Your task to perform on an android device: What's the top post on reddit right now? Image 0: 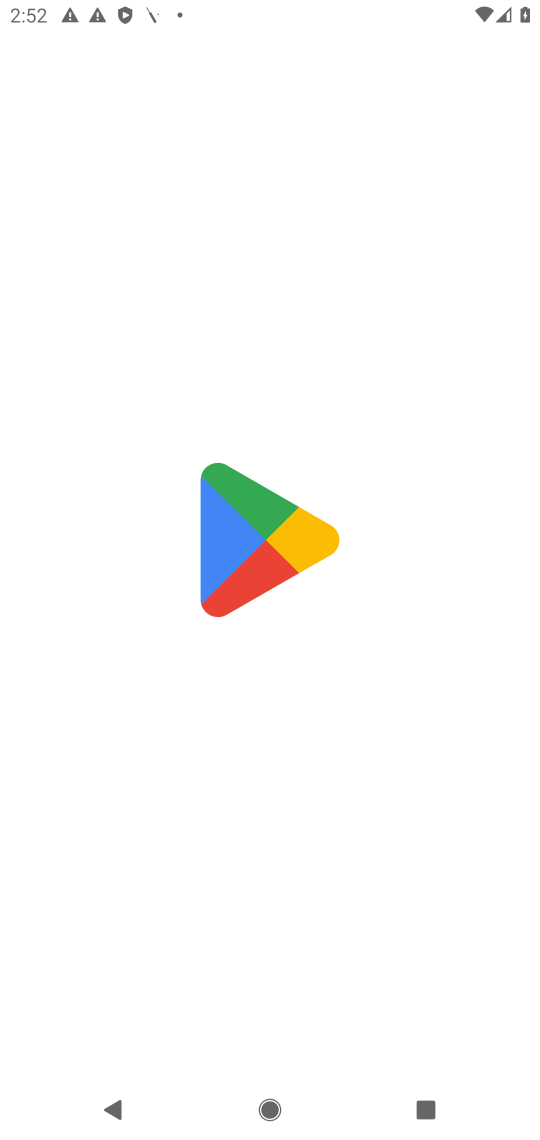
Step 0: press home button
Your task to perform on an android device: What's the top post on reddit right now? Image 1: 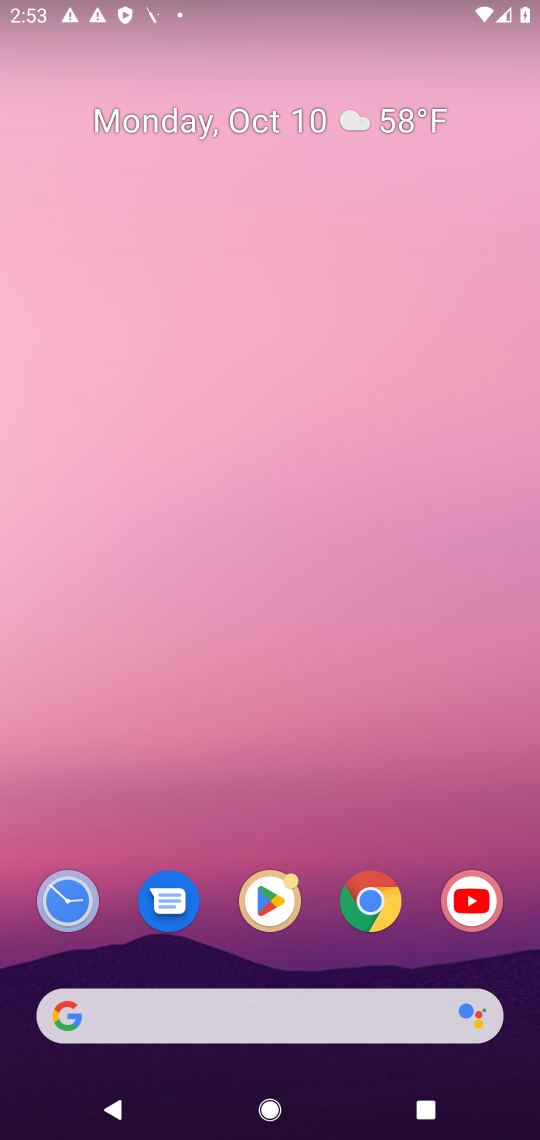
Step 1: drag from (315, 783) to (333, 596)
Your task to perform on an android device: What's the top post on reddit right now? Image 2: 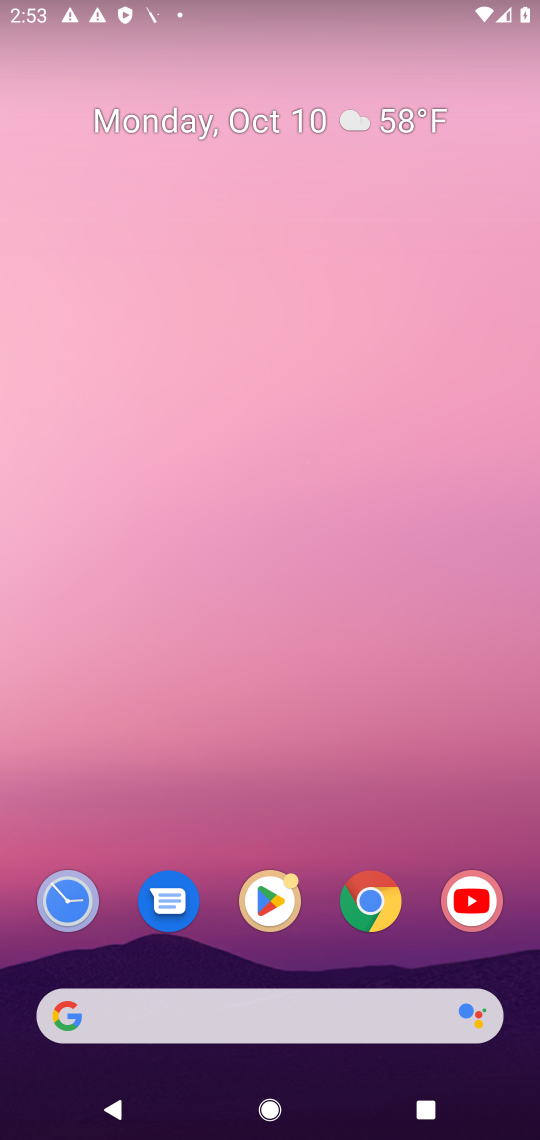
Step 2: drag from (365, 887) to (341, 441)
Your task to perform on an android device: What's the top post on reddit right now? Image 3: 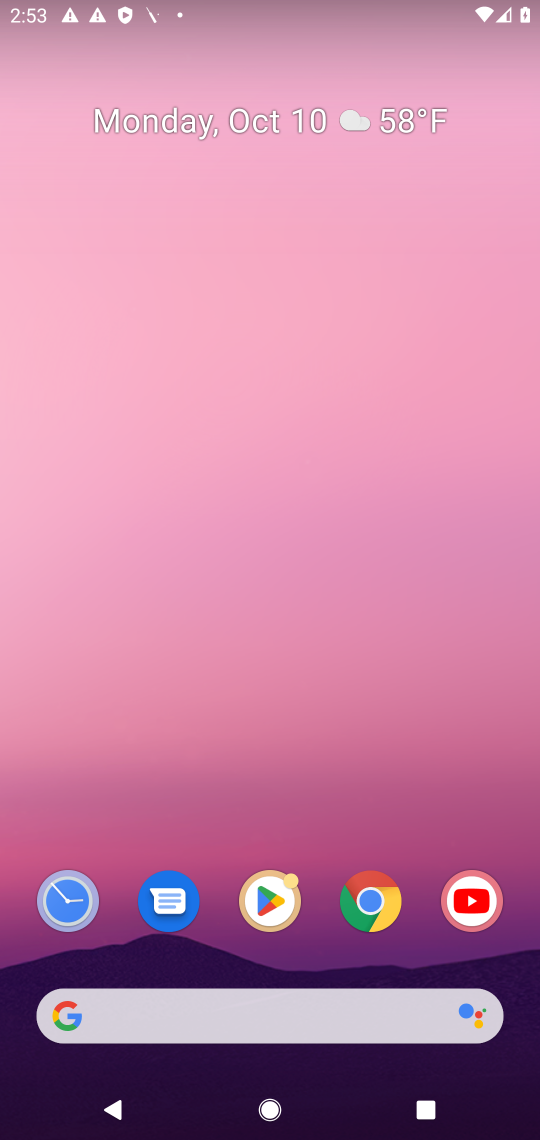
Step 3: drag from (226, 930) to (285, 418)
Your task to perform on an android device: What's the top post on reddit right now? Image 4: 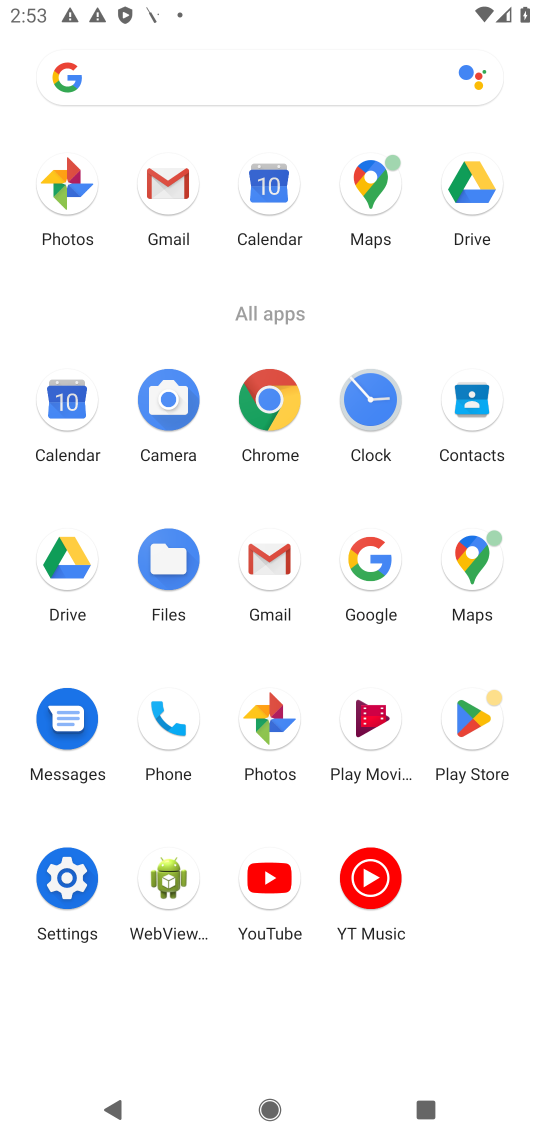
Step 4: click (371, 587)
Your task to perform on an android device: What's the top post on reddit right now? Image 5: 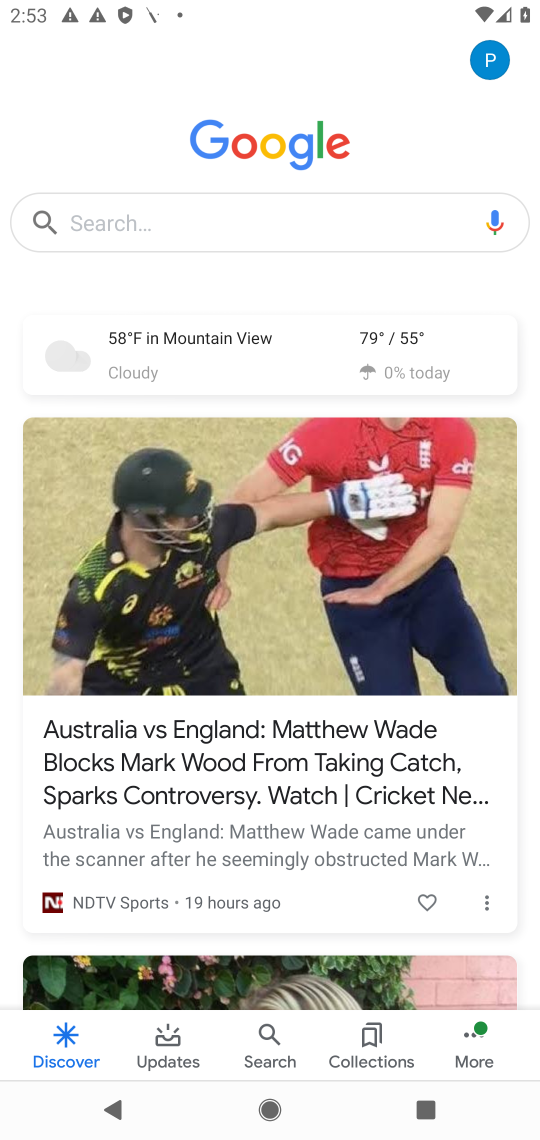
Step 5: click (362, 219)
Your task to perform on an android device: What's the top post on reddit right now? Image 6: 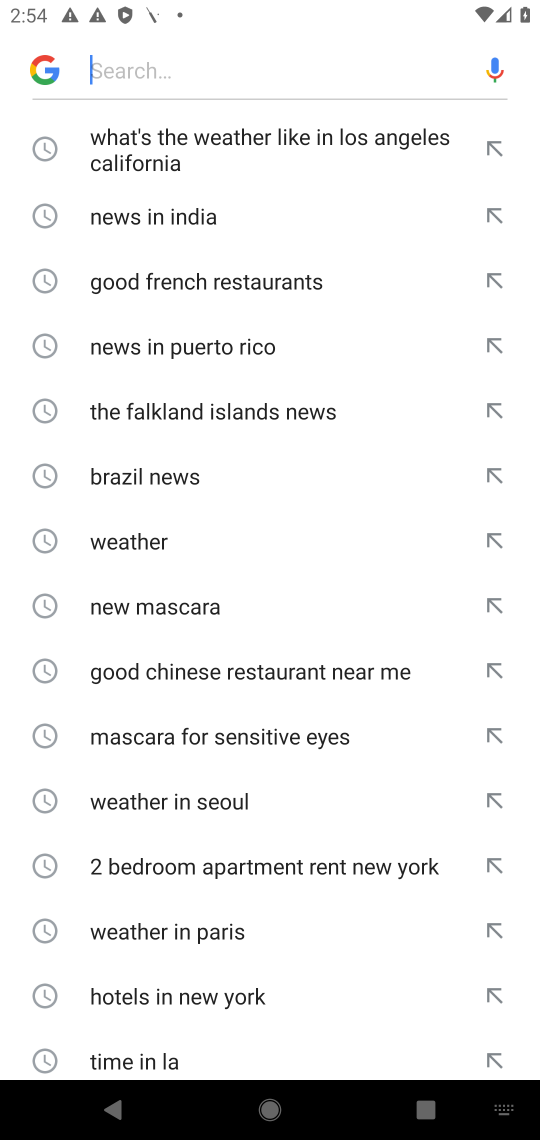
Step 6: type "reddit"
Your task to perform on an android device: What's the top post on reddit right now? Image 7: 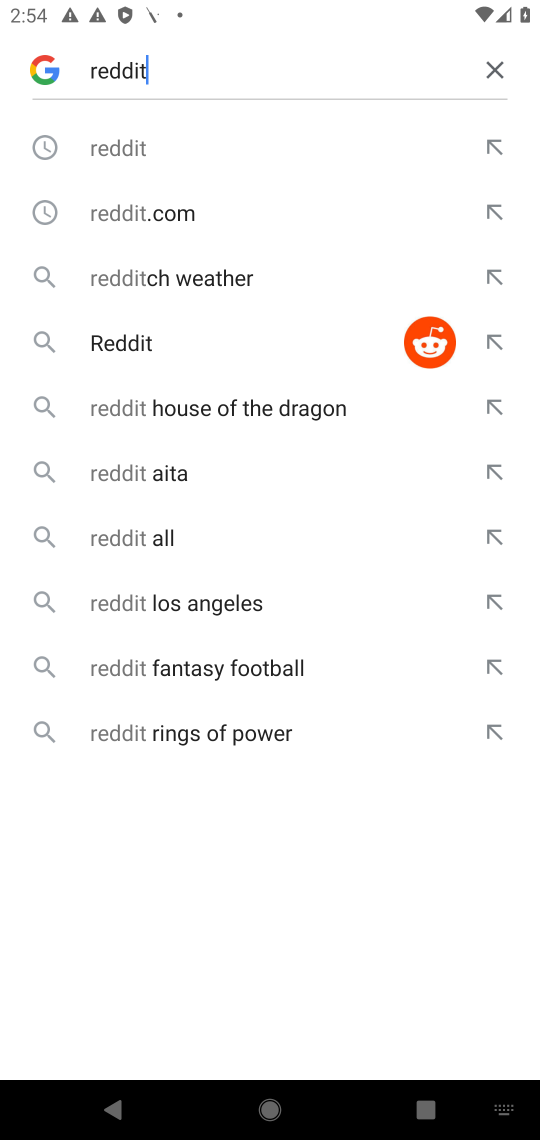
Step 7: click (277, 335)
Your task to perform on an android device: What's the top post on reddit right now? Image 8: 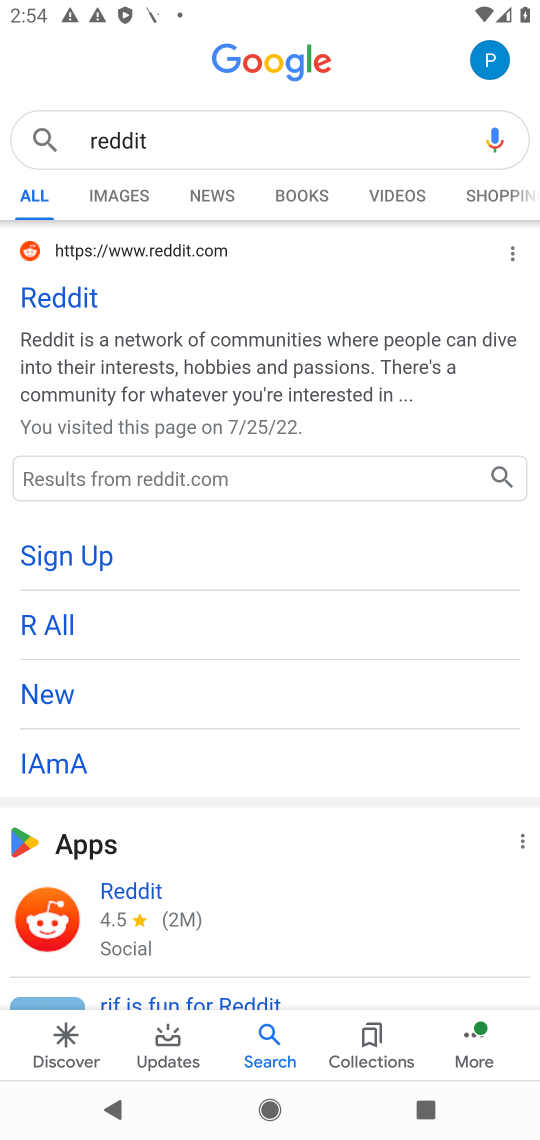
Step 8: click (82, 298)
Your task to perform on an android device: What's the top post on reddit right now? Image 9: 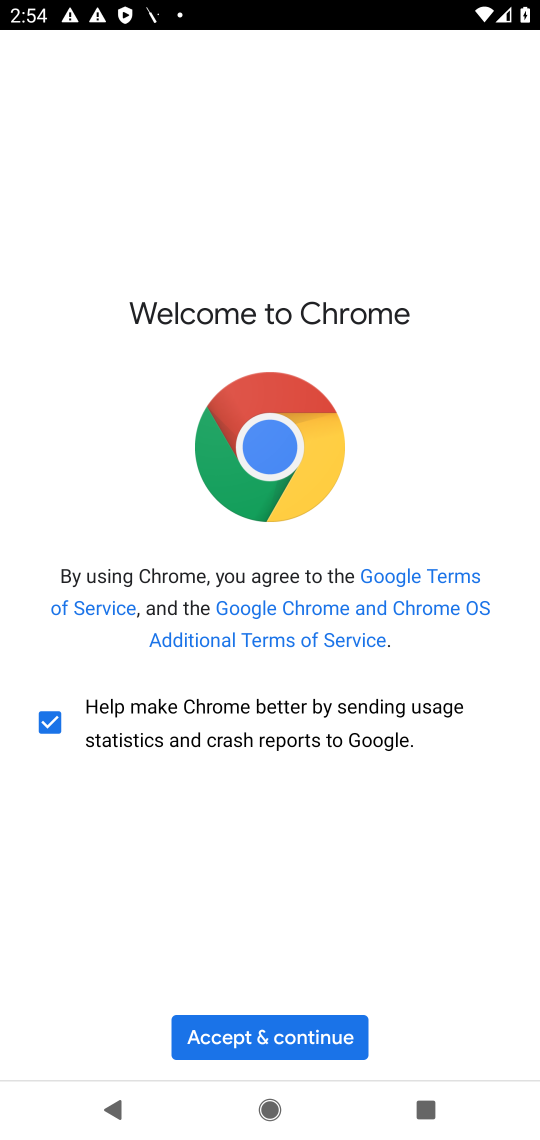
Step 9: click (240, 1034)
Your task to perform on an android device: What's the top post on reddit right now? Image 10: 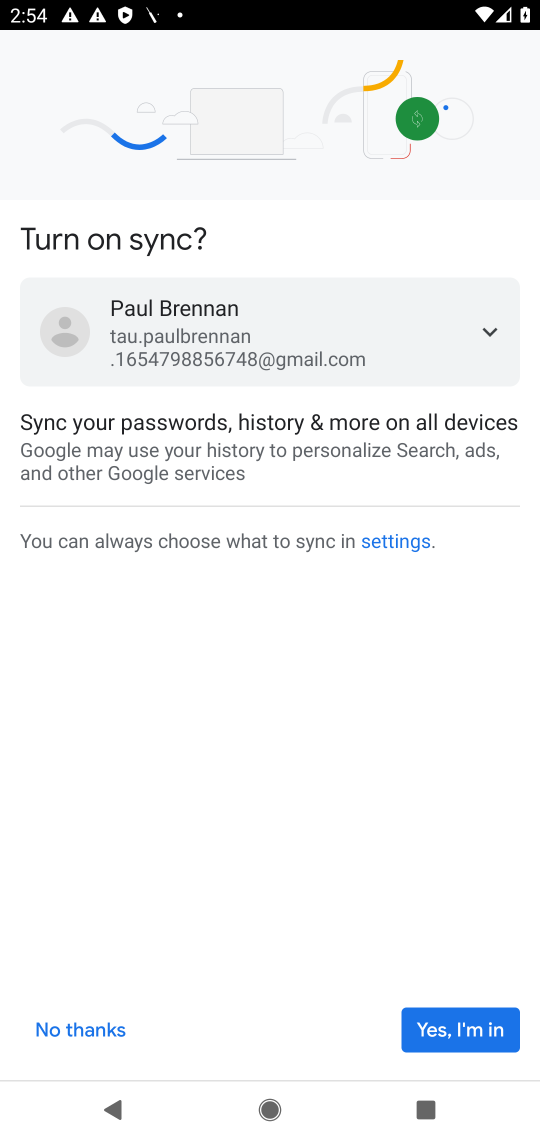
Step 10: click (399, 1032)
Your task to perform on an android device: What's the top post on reddit right now? Image 11: 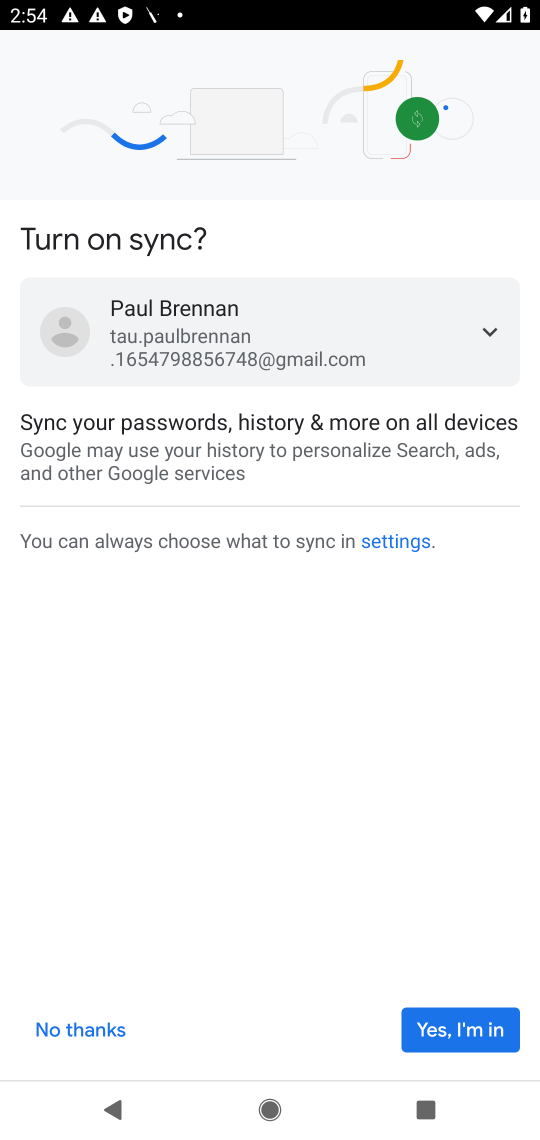
Step 11: click (461, 1044)
Your task to perform on an android device: What's the top post on reddit right now? Image 12: 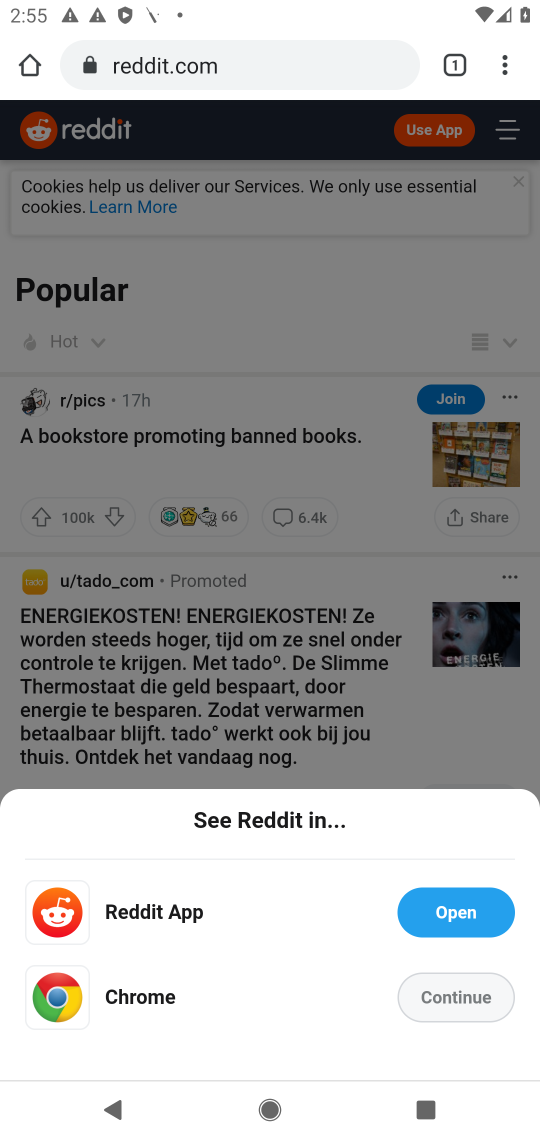
Step 12: click (468, 998)
Your task to perform on an android device: What's the top post on reddit right now? Image 13: 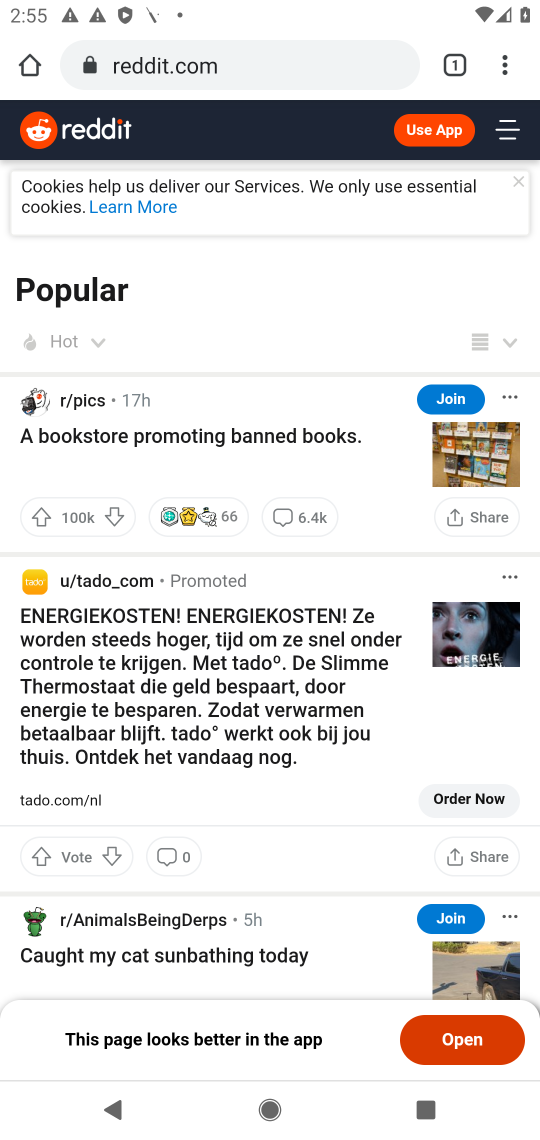
Step 13: click (468, 998)
Your task to perform on an android device: What's the top post on reddit right now? Image 14: 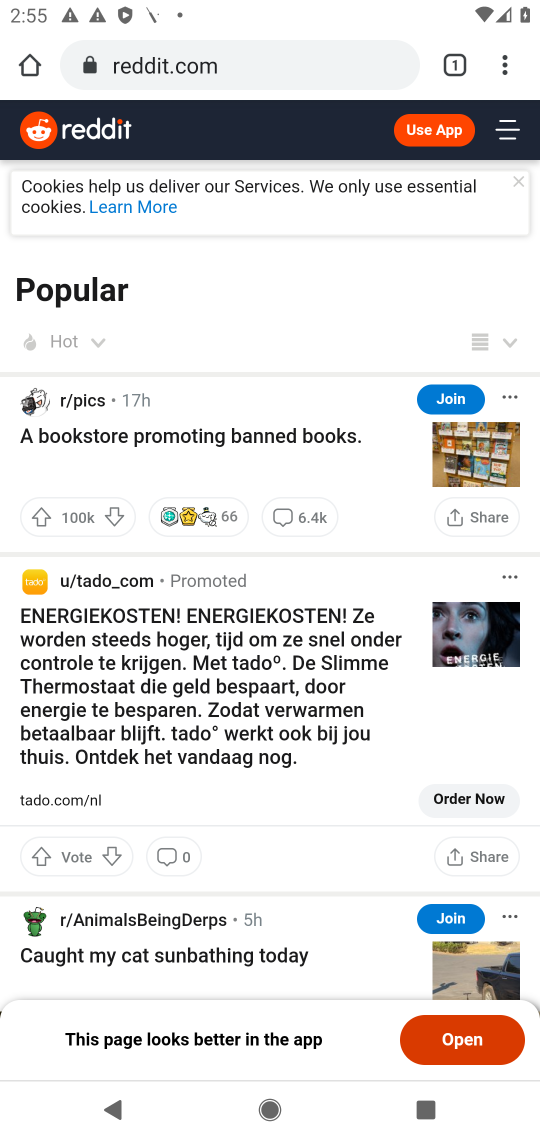
Step 14: task complete